Your task to perform on an android device: toggle data saver in the chrome app Image 0: 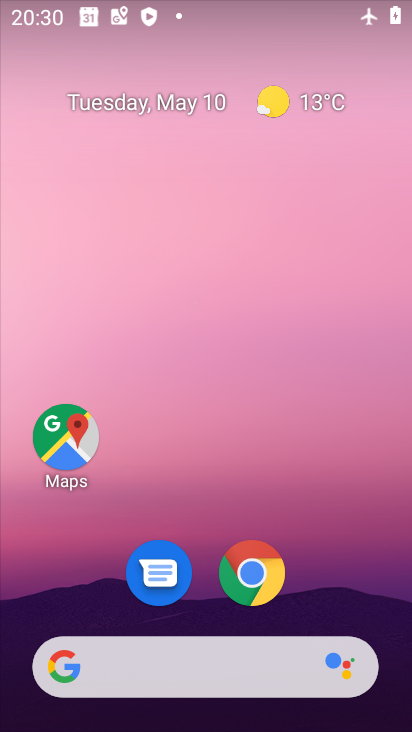
Step 0: click (260, 581)
Your task to perform on an android device: toggle data saver in the chrome app Image 1: 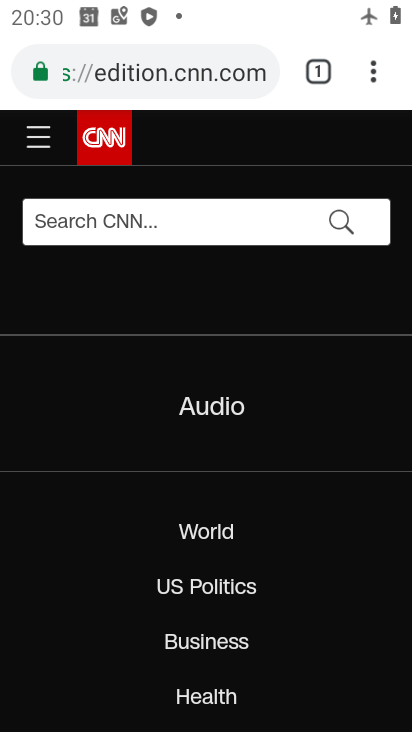
Step 1: click (377, 75)
Your task to perform on an android device: toggle data saver in the chrome app Image 2: 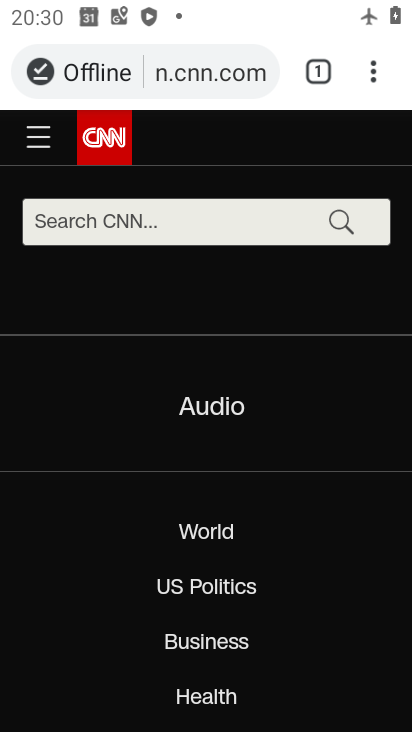
Step 2: click (376, 65)
Your task to perform on an android device: toggle data saver in the chrome app Image 3: 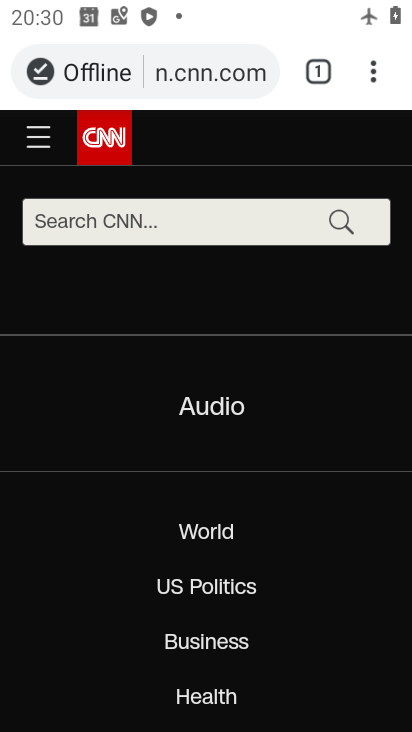
Step 3: drag from (372, 74) to (152, 576)
Your task to perform on an android device: toggle data saver in the chrome app Image 4: 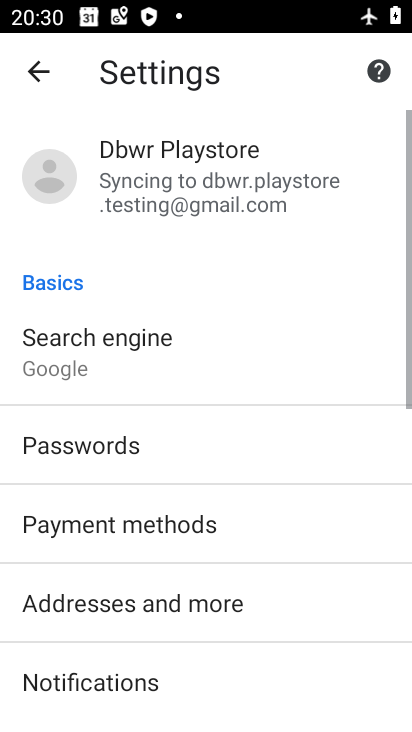
Step 4: drag from (211, 675) to (182, 179)
Your task to perform on an android device: toggle data saver in the chrome app Image 5: 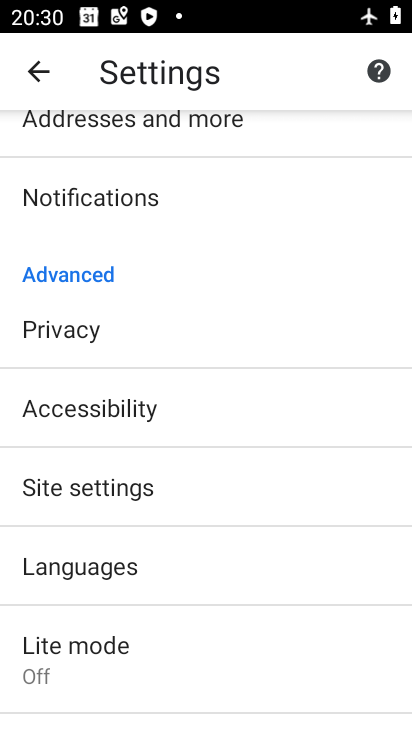
Step 5: drag from (163, 583) to (173, 380)
Your task to perform on an android device: toggle data saver in the chrome app Image 6: 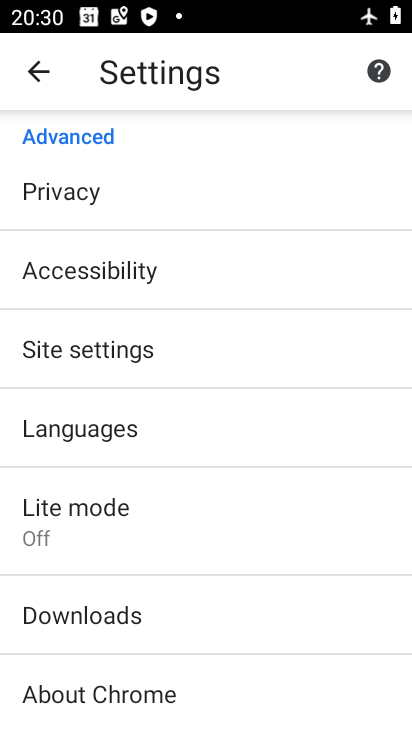
Step 6: click (73, 515)
Your task to perform on an android device: toggle data saver in the chrome app Image 7: 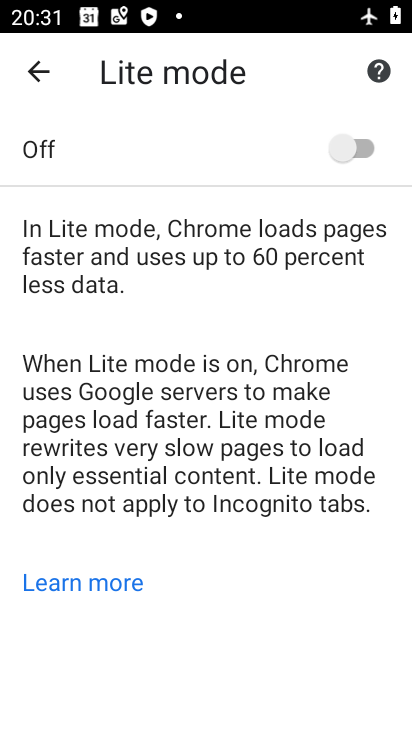
Step 7: click (351, 163)
Your task to perform on an android device: toggle data saver in the chrome app Image 8: 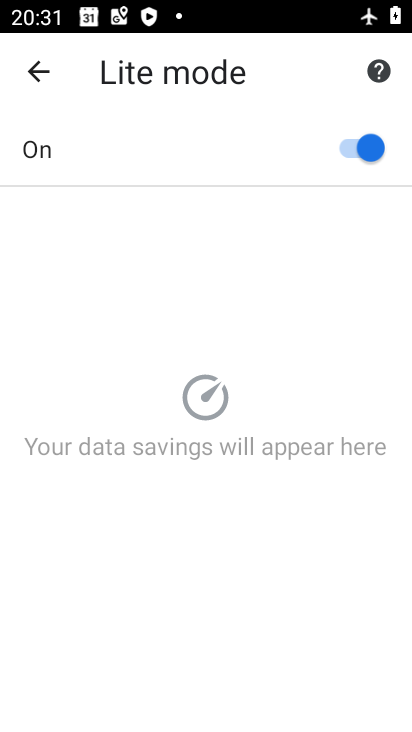
Step 8: task complete